Your task to perform on an android device: Open maps Image 0: 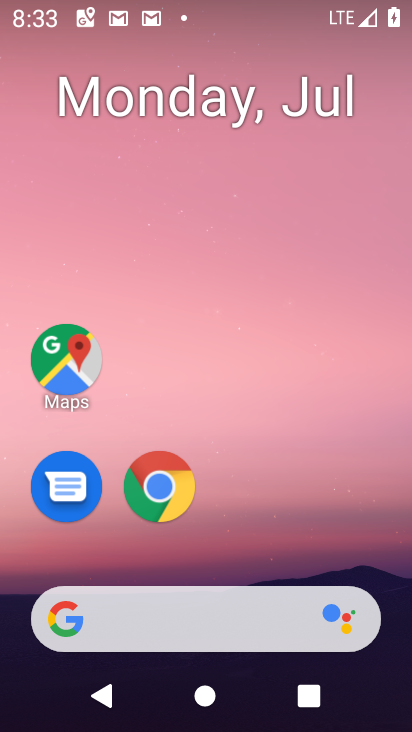
Step 0: drag from (383, 548) to (380, 193)
Your task to perform on an android device: Open maps Image 1: 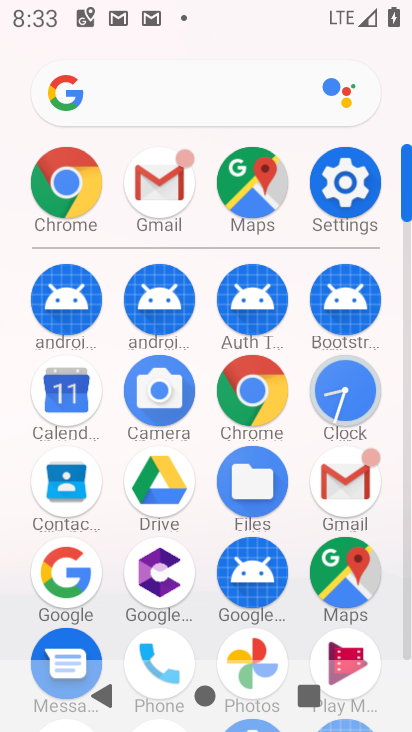
Step 1: click (344, 580)
Your task to perform on an android device: Open maps Image 2: 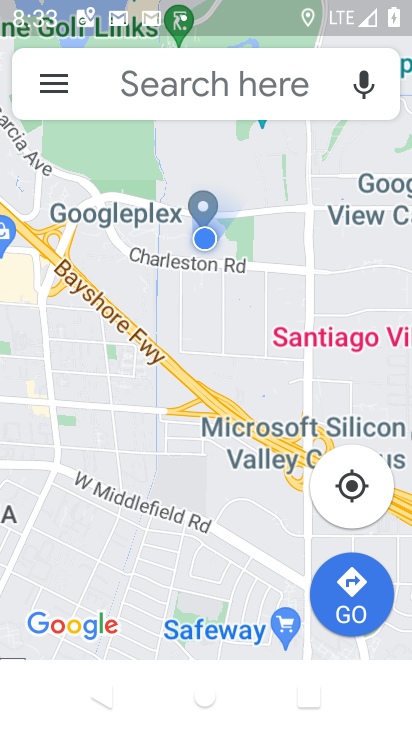
Step 2: task complete